Your task to perform on an android device: toggle show notifications on the lock screen Image 0: 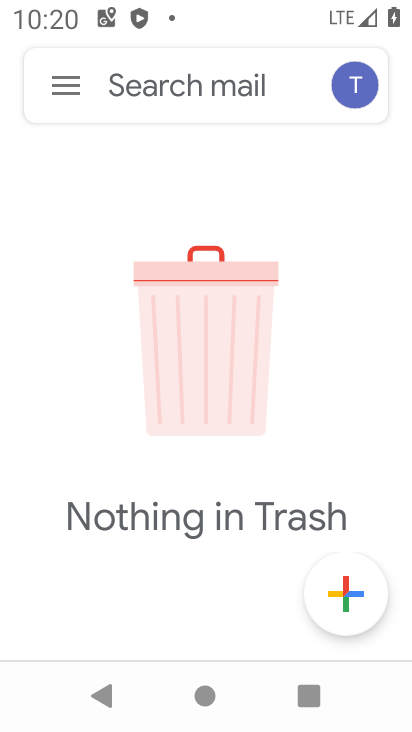
Step 0: press home button
Your task to perform on an android device: toggle show notifications on the lock screen Image 1: 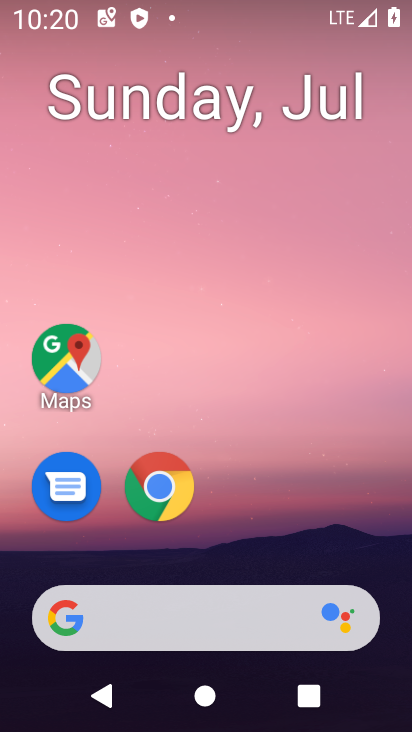
Step 1: drag from (358, 536) to (389, 118)
Your task to perform on an android device: toggle show notifications on the lock screen Image 2: 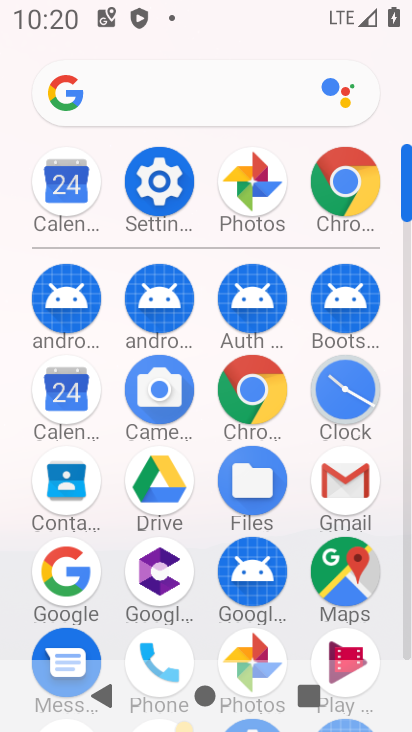
Step 2: click (155, 188)
Your task to perform on an android device: toggle show notifications on the lock screen Image 3: 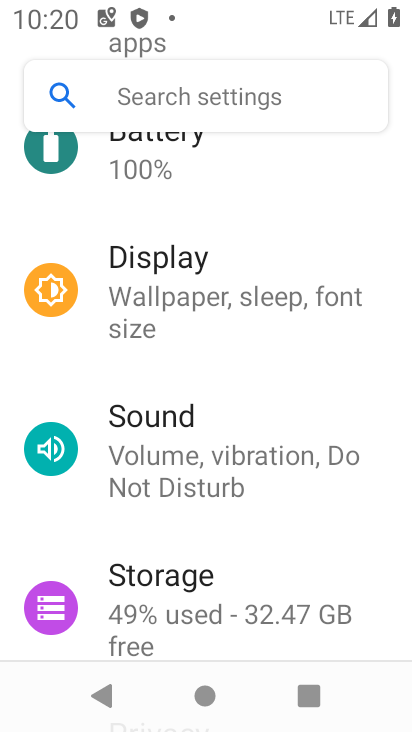
Step 3: drag from (358, 191) to (368, 290)
Your task to perform on an android device: toggle show notifications on the lock screen Image 4: 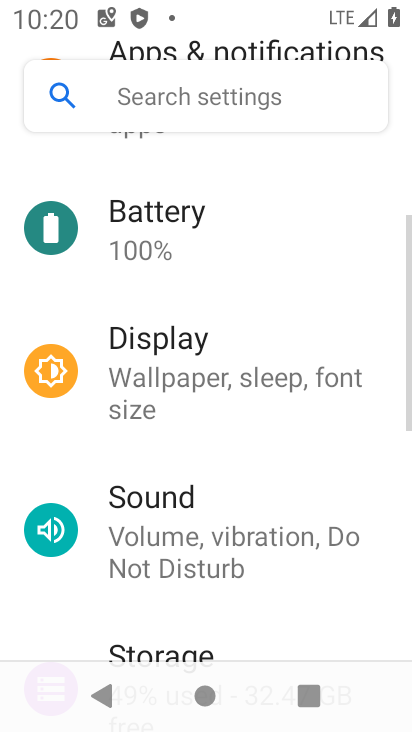
Step 4: drag from (373, 183) to (363, 299)
Your task to perform on an android device: toggle show notifications on the lock screen Image 5: 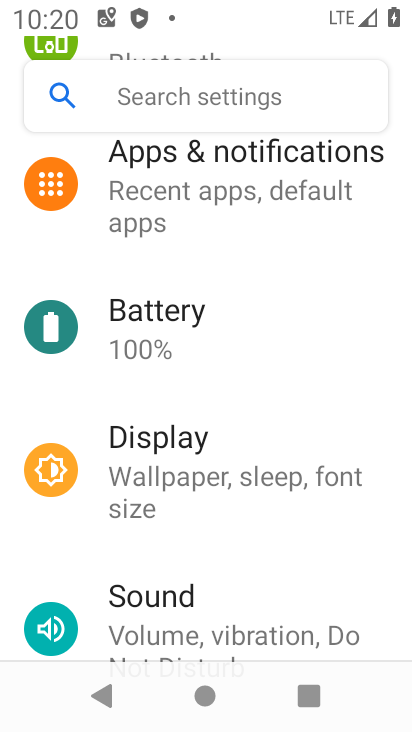
Step 5: drag from (372, 194) to (376, 360)
Your task to perform on an android device: toggle show notifications on the lock screen Image 6: 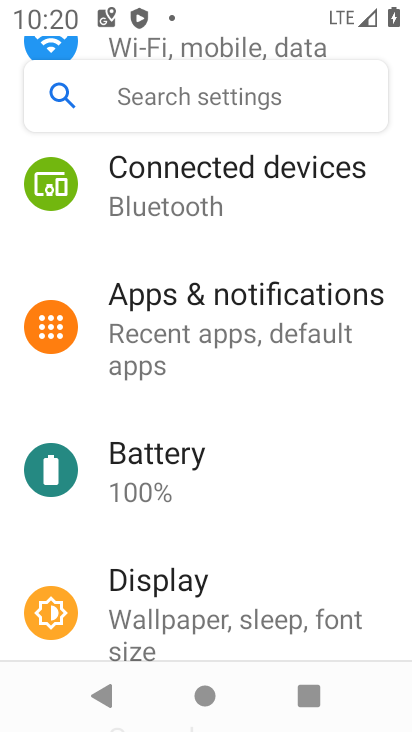
Step 6: drag from (396, 143) to (389, 473)
Your task to perform on an android device: toggle show notifications on the lock screen Image 7: 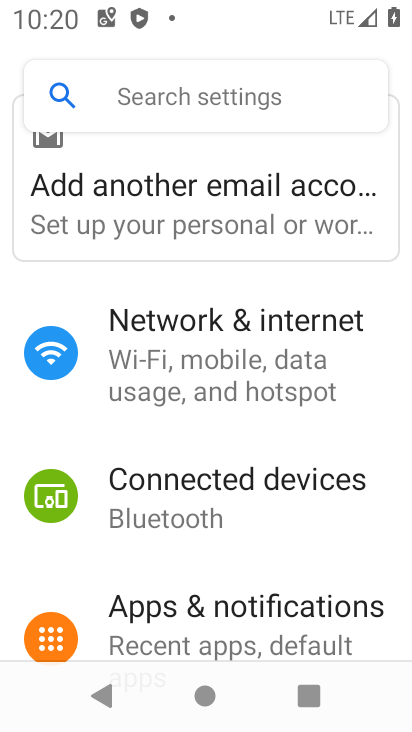
Step 7: click (331, 594)
Your task to perform on an android device: toggle show notifications on the lock screen Image 8: 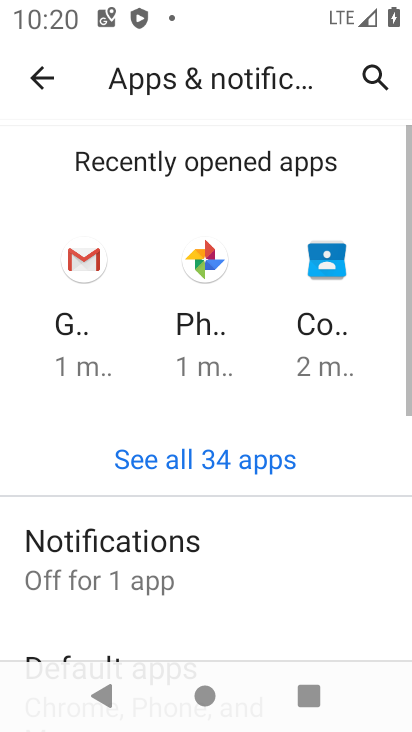
Step 8: drag from (331, 593) to (335, 462)
Your task to perform on an android device: toggle show notifications on the lock screen Image 9: 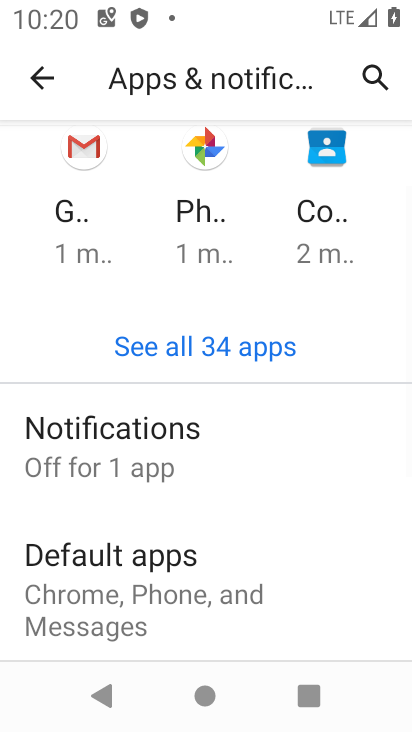
Step 9: drag from (325, 596) to (327, 490)
Your task to perform on an android device: toggle show notifications on the lock screen Image 10: 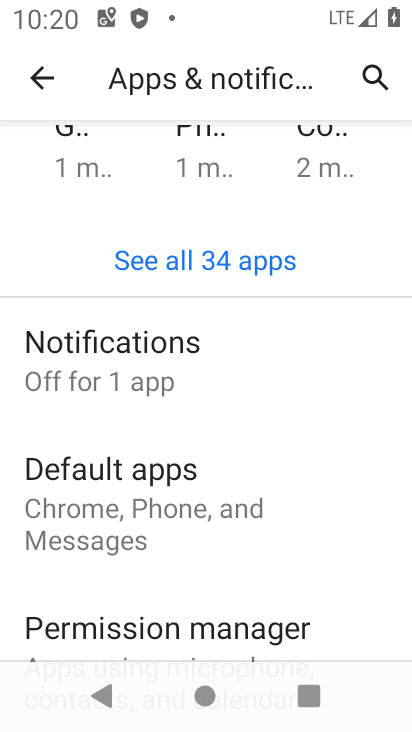
Step 10: click (279, 367)
Your task to perform on an android device: toggle show notifications on the lock screen Image 11: 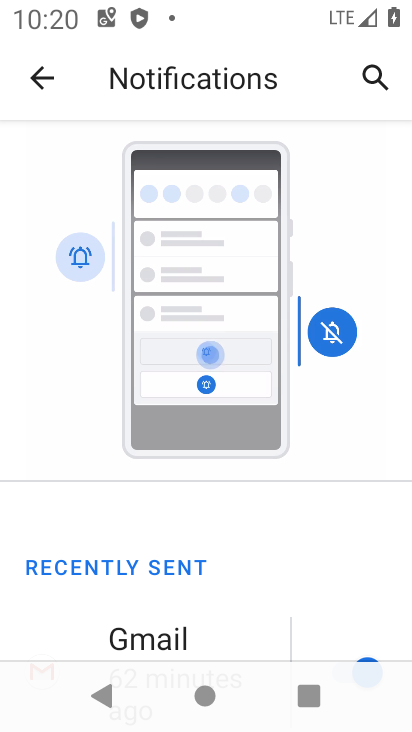
Step 11: drag from (292, 531) to (309, 429)
Your task to perform on an android device: toggle show notifications on the lock screen Image 12: 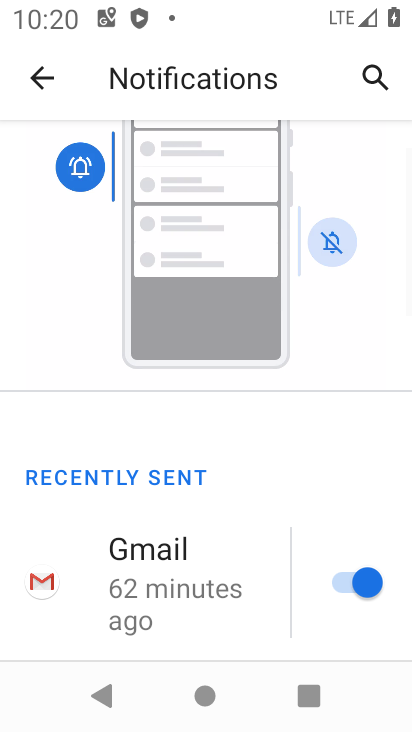
Step 12: drag from (259, 540) to (254, 423)
Your task to perform on an android device: toggle show notifications on the lock screen Image 13: 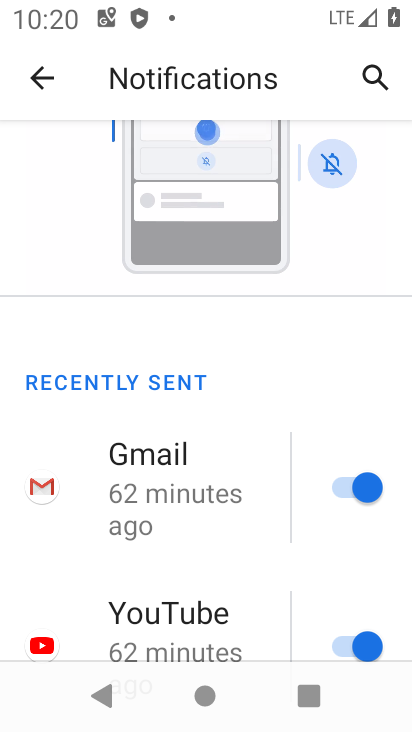
Step 13: drag from (247, 577) to (248, 454)
Your task to perform on an android device: toggle show notifications on the lock screen Image 14: 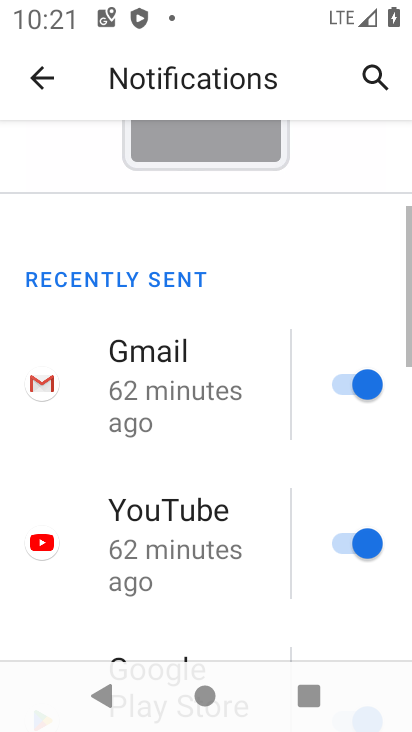
Step 14: drag from (235, 621) to (235, 481)
Your task to perform on an android device: toggle show notifications on the lock screen Image 15: 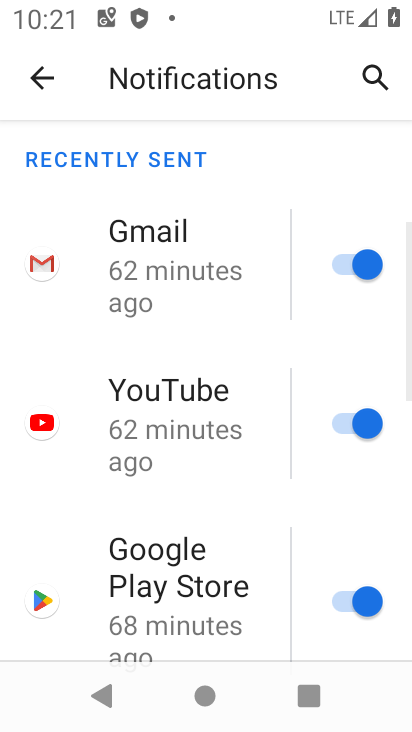
Step 15: drag from (237, 638) to (243, 516)
Your task to perform on an android device: toggle show notifications on the lock screen Image 16: 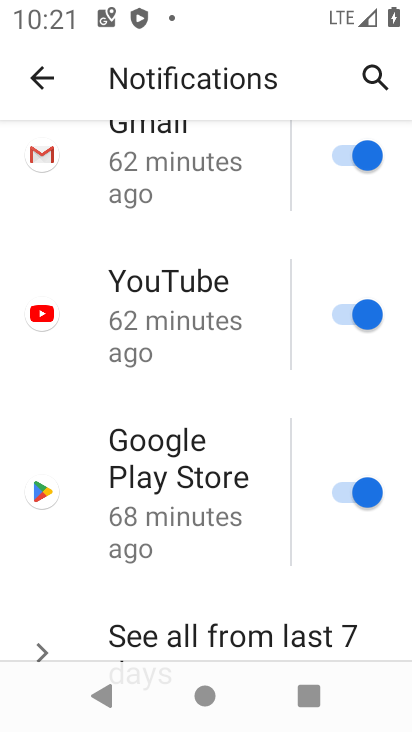
Step 16: drag from (232, 643) to (239, 499)
Your task to perform on an android device: toggle show notifications on the lock screen Image 17: 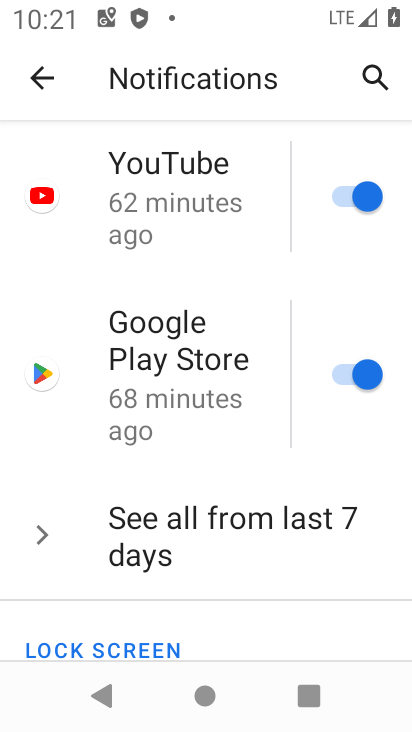
Step 17: drag from (241, 625) to (244, 498)
Your task to perform on an android device: toggle show notifications on the lock screen Image 18: 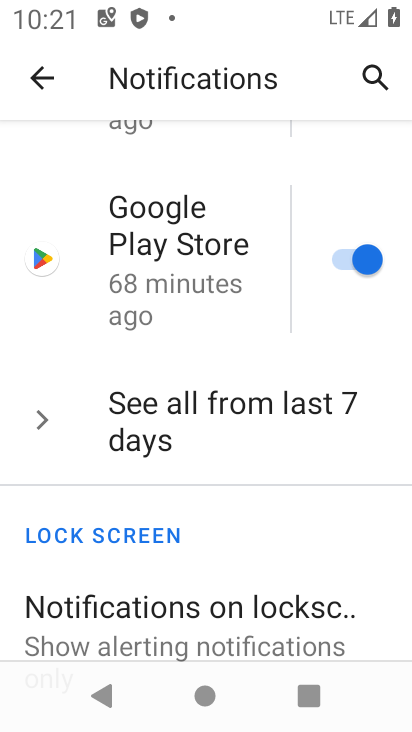
Step 18: drag from (255, 638) to (259, 457)
Your task to perform on an android device: toggle show notifications on the lock screen Image 19: 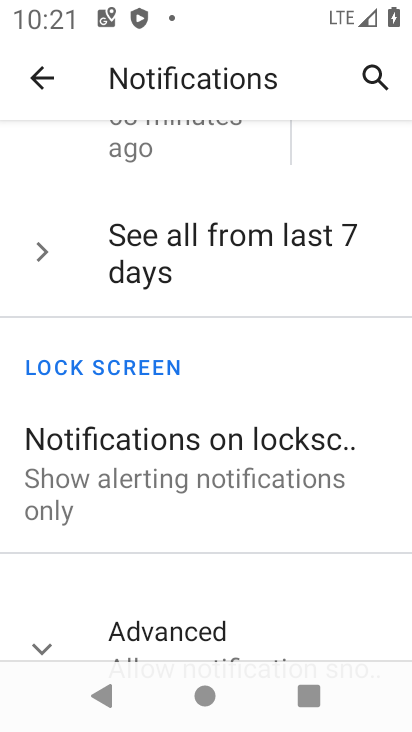
Step 19: click (259, 457)
Your task to perform on an android device: toggle show notifications on the lock screen Image 20: 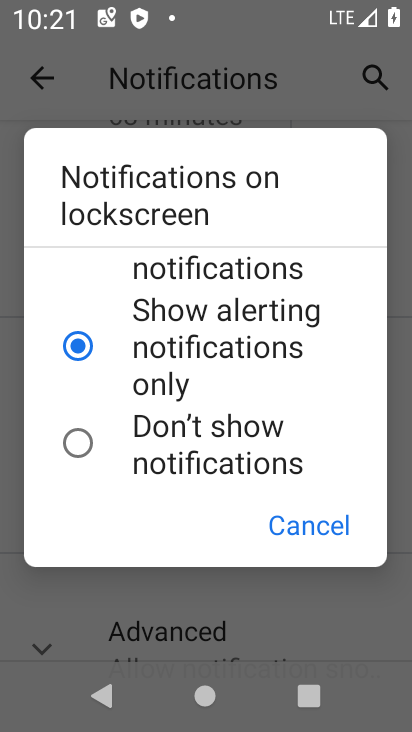
Step 20: drag from (353, 279) to (353, 405)
Your task to perform on an android device: toggle show notifications on the lock screen Image 21: 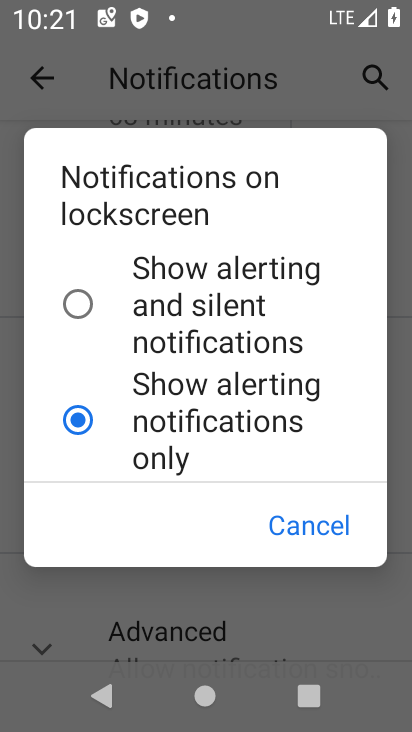
Step 21: click (192, 316)
Your task to perform on an android device: toggle show notifications on the lock screen Image 22: 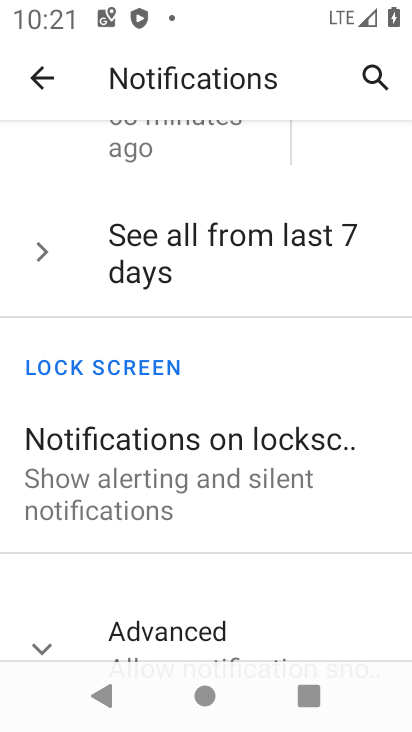
Step 22: task complete